Your task to perform on an android device: Open Chrome and go to settings Image 0: 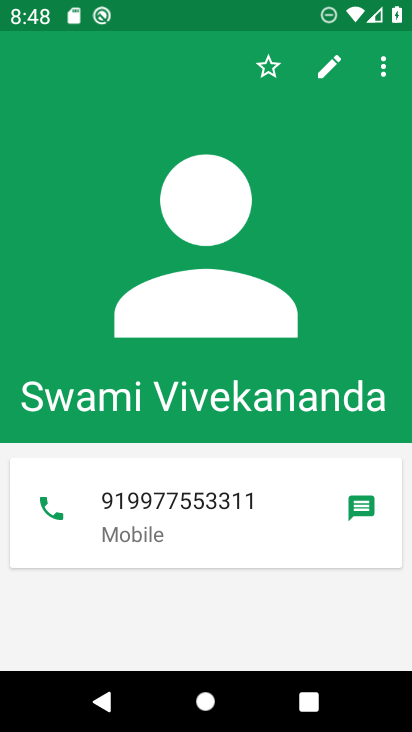
Step 0: press home button
Your task to perform on an android device: Open Chrome and go to settings Image 1: 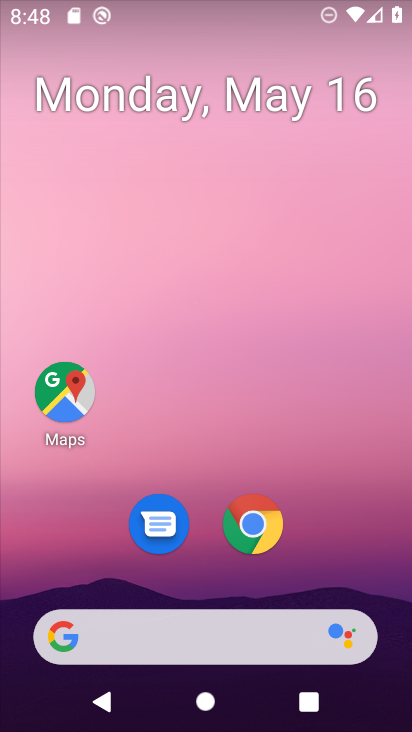
Step 1: click (262, 523)
Your task to perform on an android device: Open Chrome and go to settings Image 2: 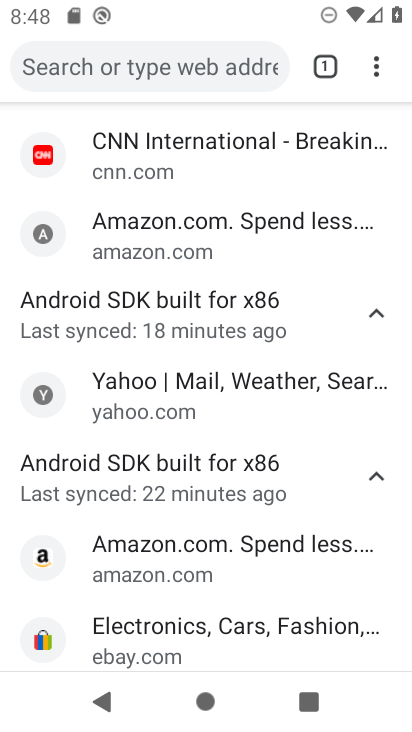
Step 2: click (377, 66)
Your task to perform on an android device: Open Chrome and go to settings Image 3: 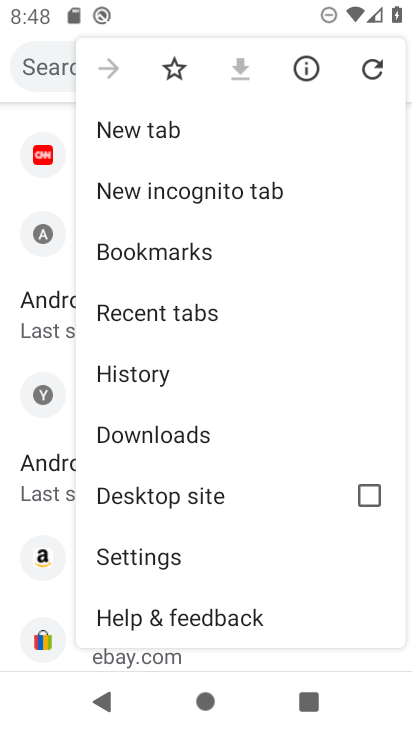
Step 3: click (194, 549)
Your task to perform on an android device: Open Chrome and go to settings Image 4: 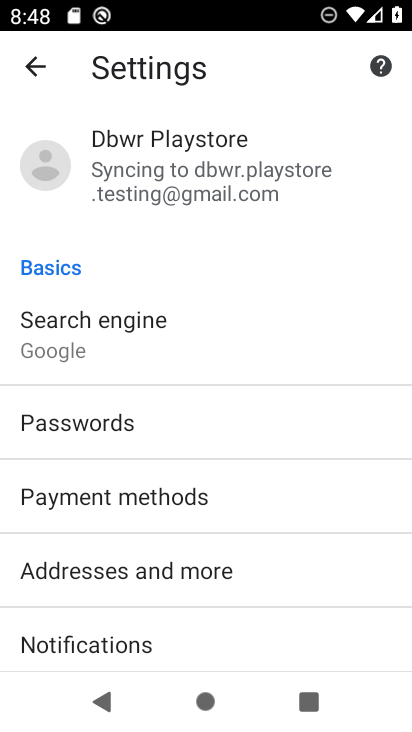
Step 4: task complete